Your task to perform on an android device: check the backup settings in the google photos Image 0: 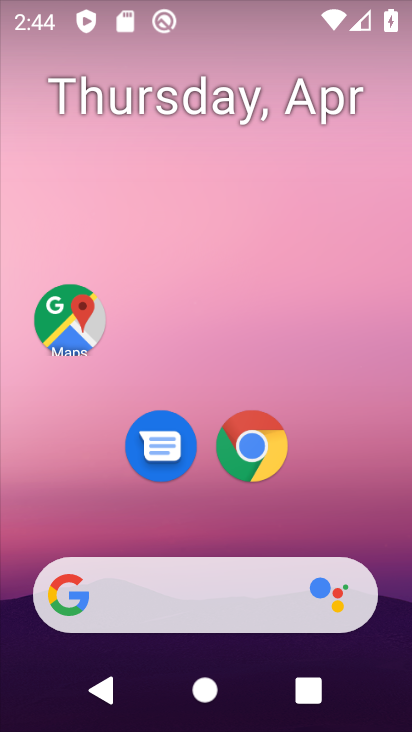
Step 0: drag from (319, 418) to (270, 126)
Your task to perform on an android device: check the backup settings in the google photos Image 1: 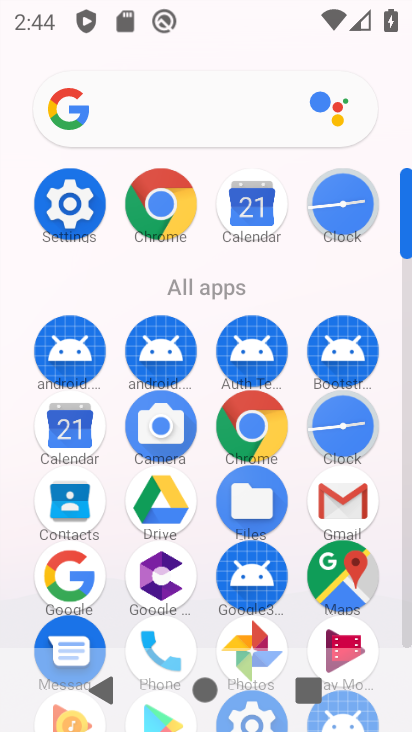
Step 1: click (238, 627)
Your task to perform on an android device: check the backup settings in the google photos Image 2: 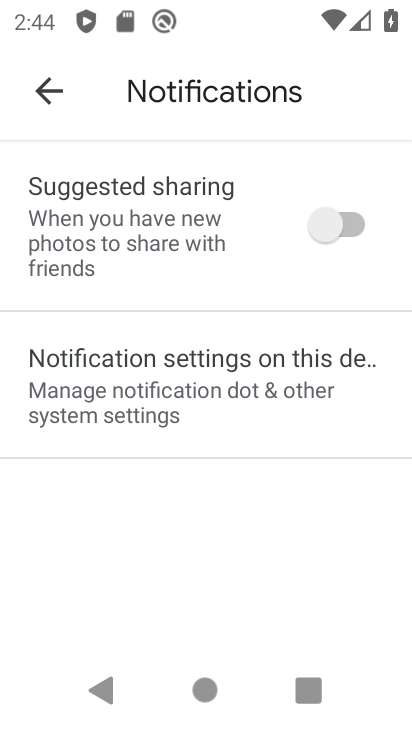
Step 2: click (41, 92)
Your task to perform on an android device: check the backup settings in the google photos Image 3: 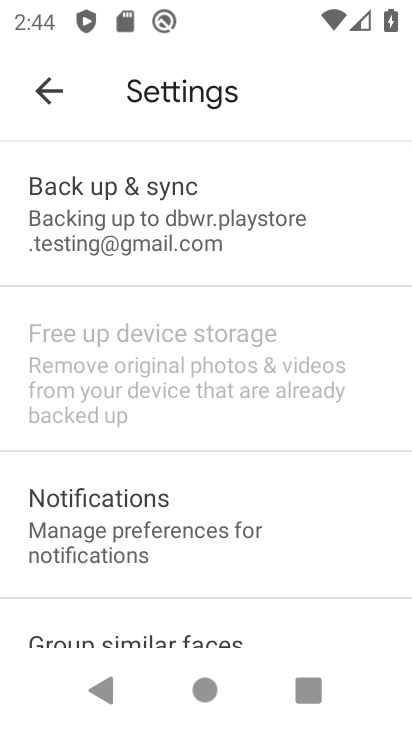
Step 3: click (95, 232)
Your task to perform on an android device: check the backup settings in the google photos Image 4: 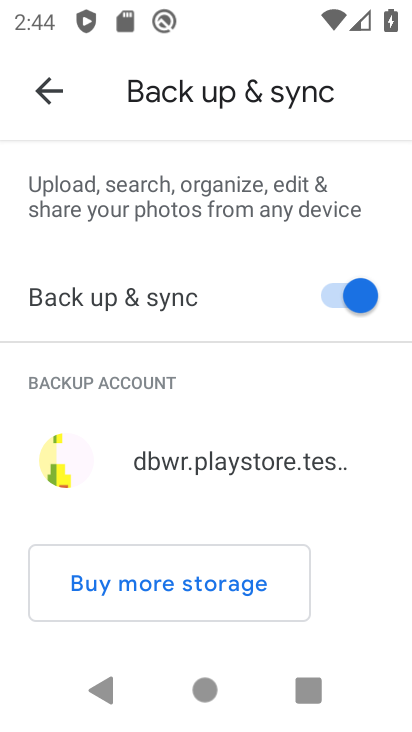
Step 4: task complete